Your task to perform on an android device: Is it going to rain this weekend? Image 0: 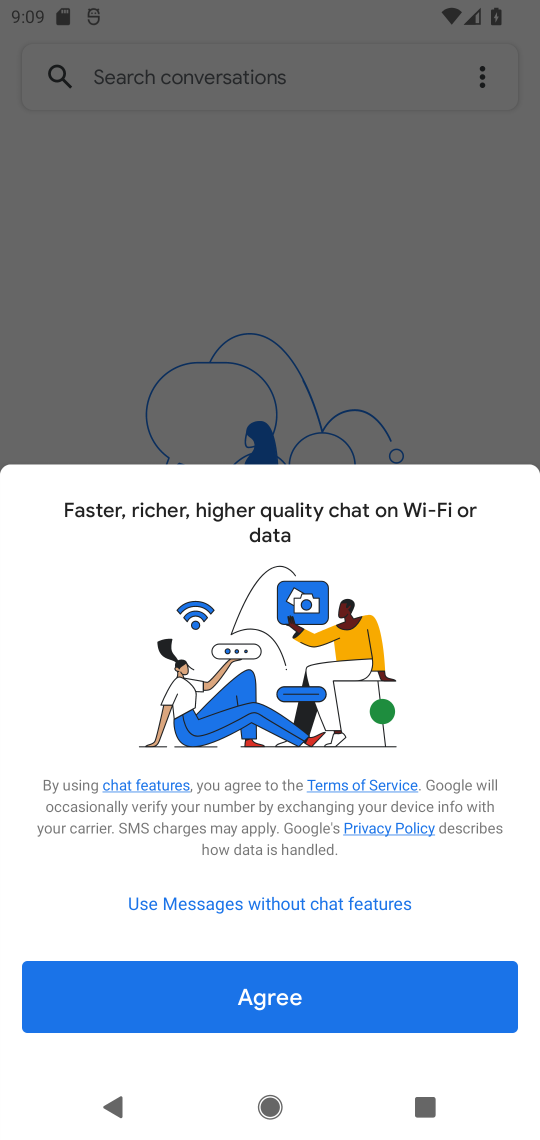
Step 0: press back button
Your task to perform on an android device: Is it going to rain this weekend? Image 1: 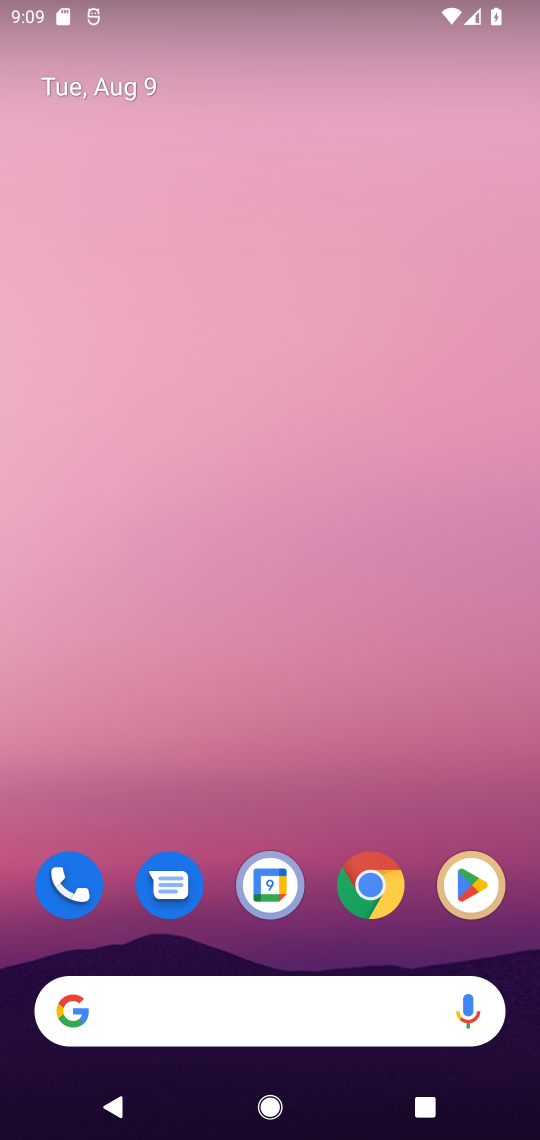
Step 1: drag from (201, 993) to (203, 47)
Your task to perform on an android device: Is it going to rain this weekend? Image 2: 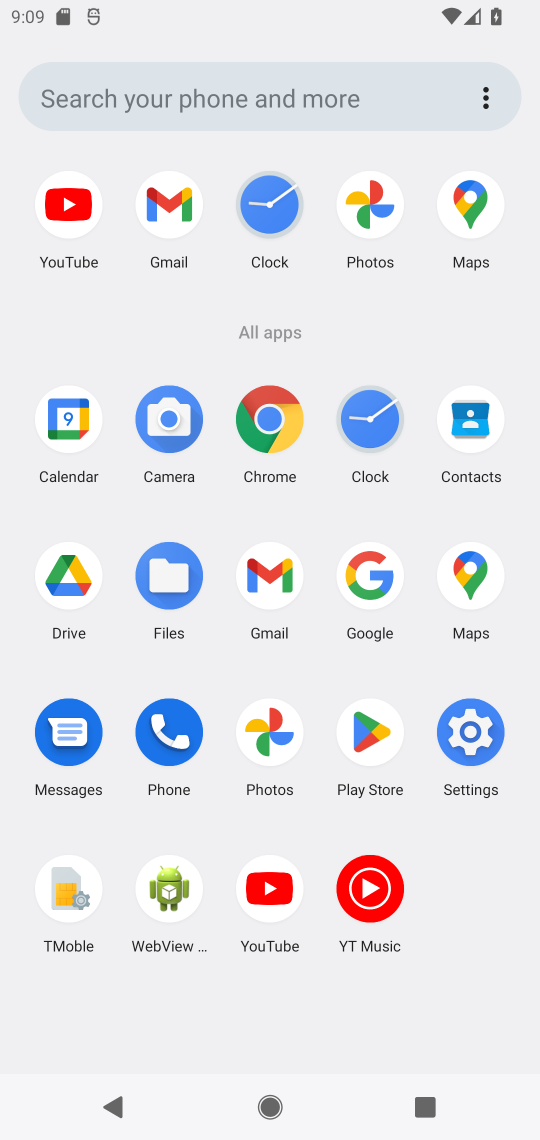
Step 2: click (276, 441)
Your task to perform on an android device: Is it going to rain this weekend? Image 3: 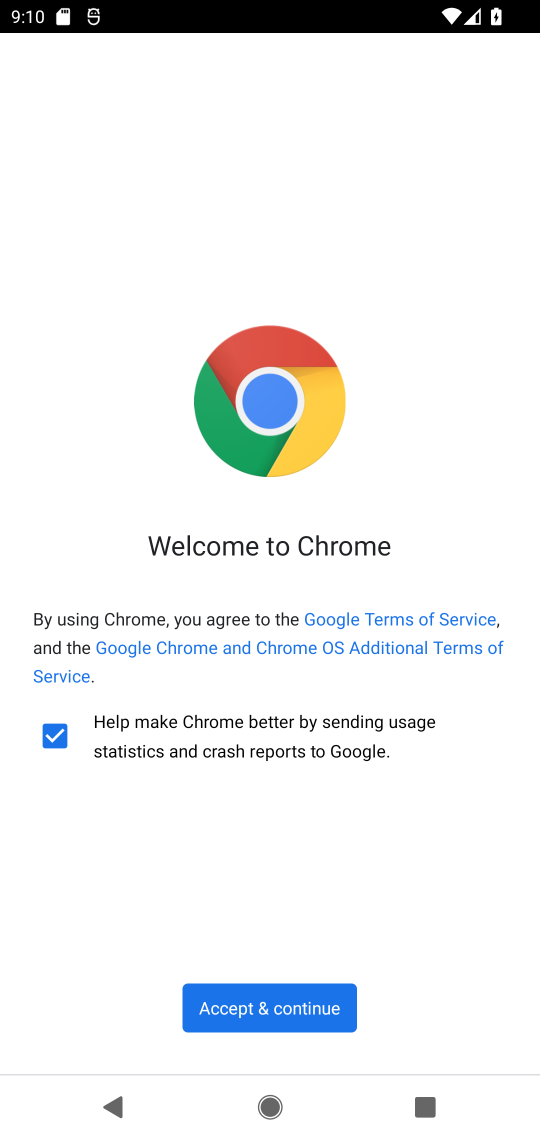
Step 3: click (310, 1010)
Your task to perform on an android device: Is it going to rain this weekend? Image 4: 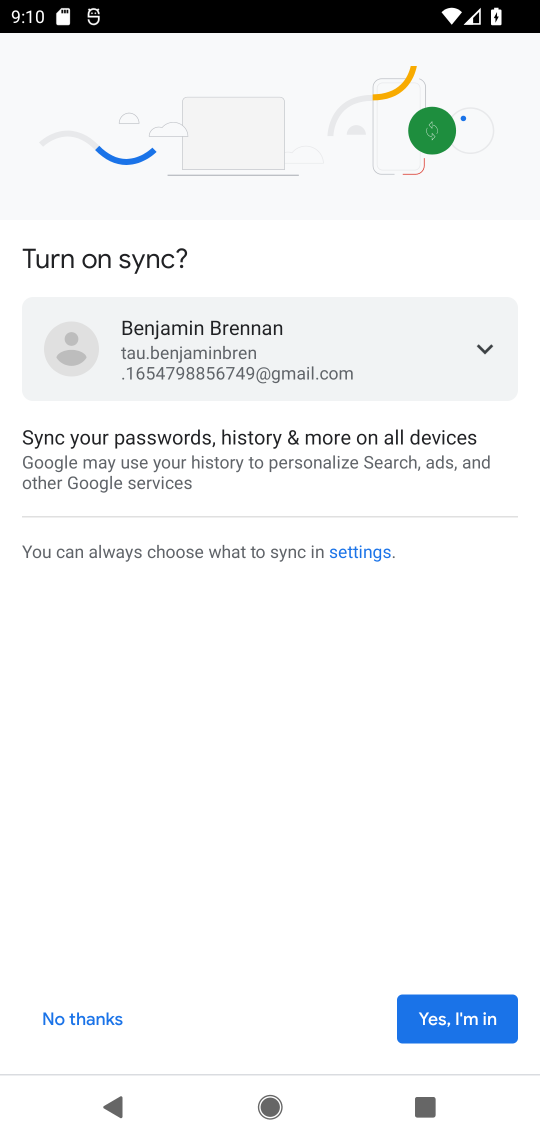
Step 4: click (410, 1015)
Your task to perform on an android device: Is it going to rain this weekend? Image 5: 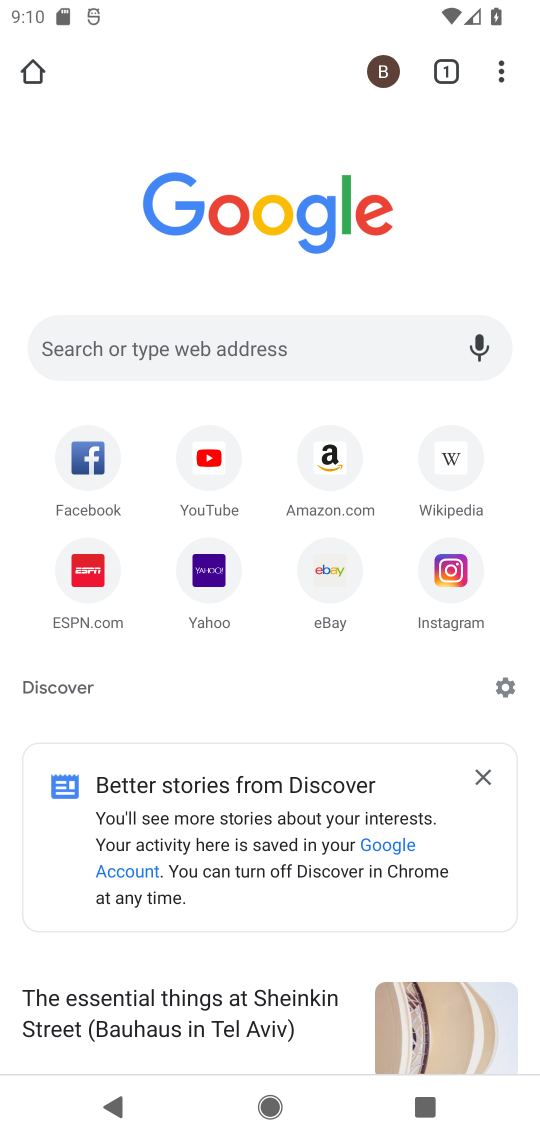
Step 5: click (221, 355)
Your task to perform on an android device: Is it going to rain this weekend? Image 6: 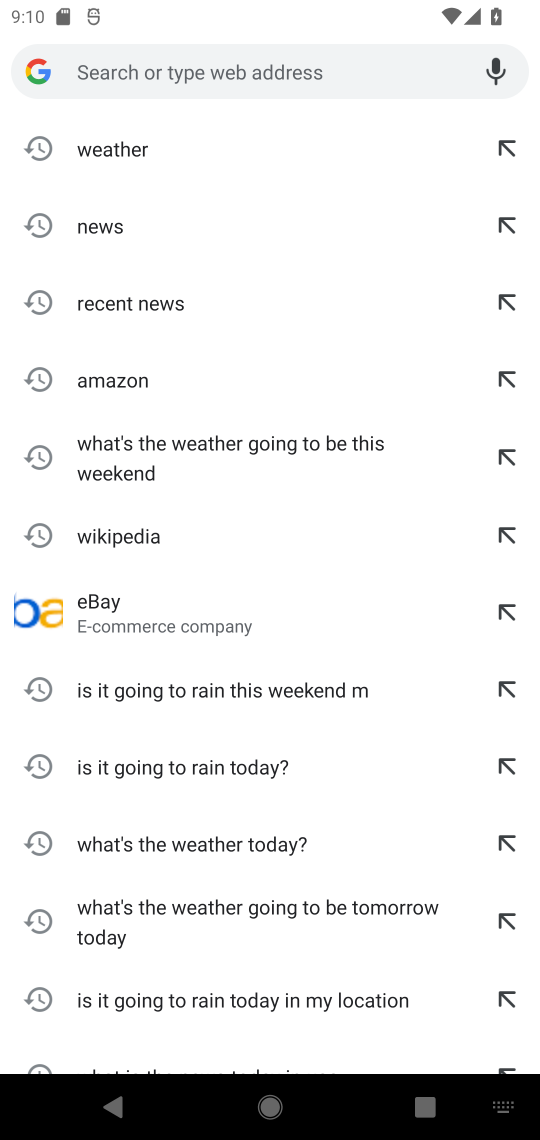
Step 6: type "weather this weekend"
Your task to perform on an android device: Is it going to rain this weekend? Image 7: 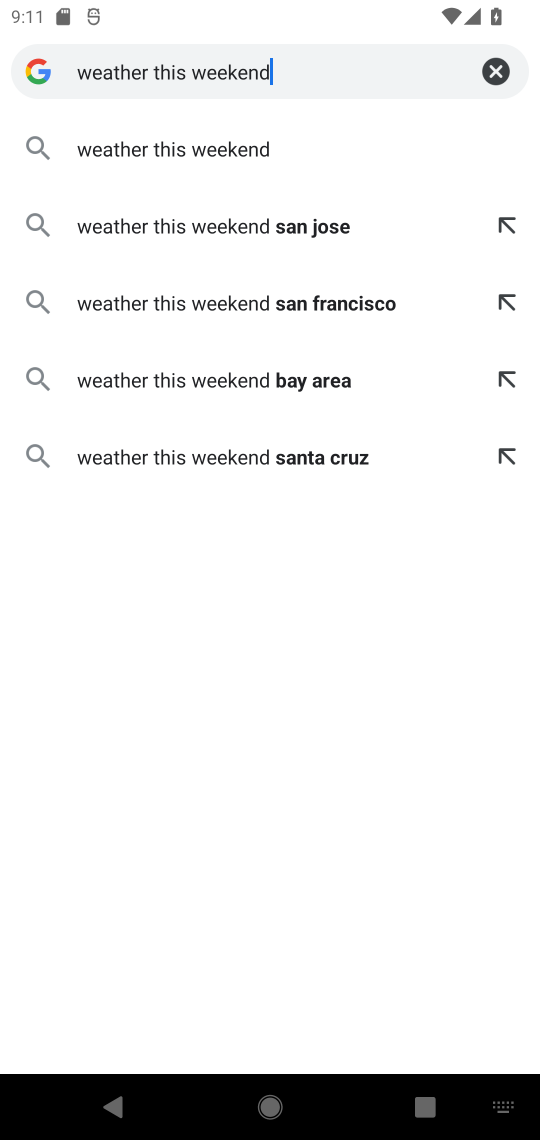
Step 7: click (136, 142)
Your task to perform on an android device: Is it going to rain this weekend? Image 8: 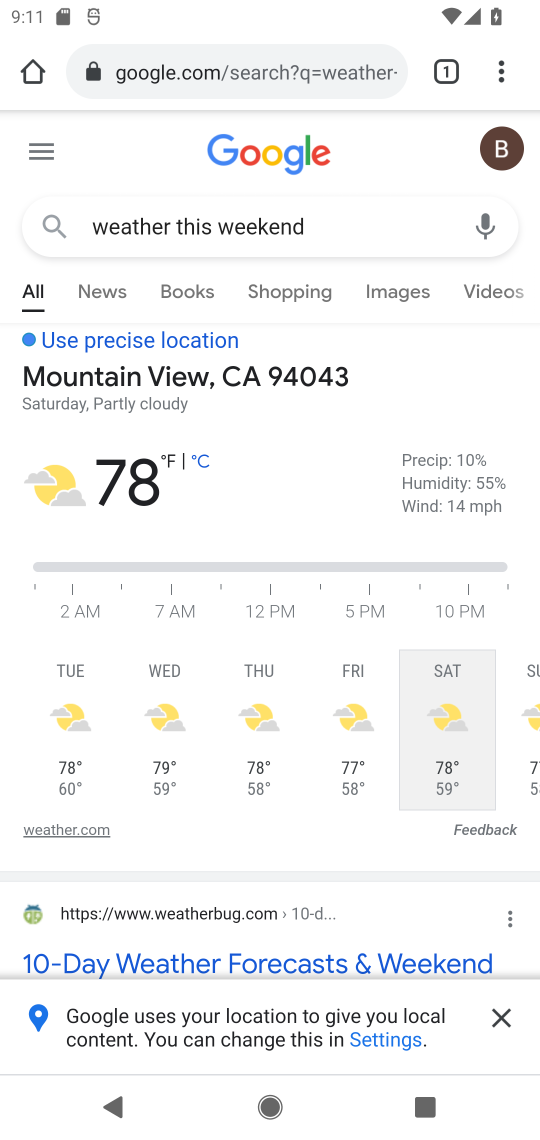
Step 8: task complete